Your task to perform on an android device: turn on sleep mode Image 0: 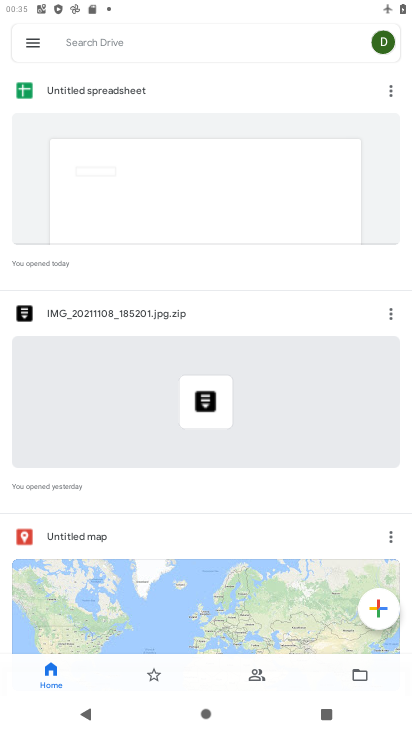
Step 0: press home button
Your task to perform on an android device: turn on sleep mode Image 1: 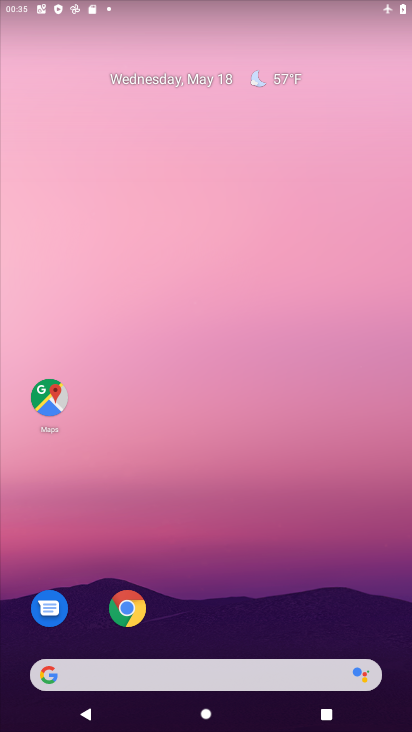
Step 1: drag from (267, 482) to (406, 365)
Your task to perform on an android device: turn on sleep mode Image 2: 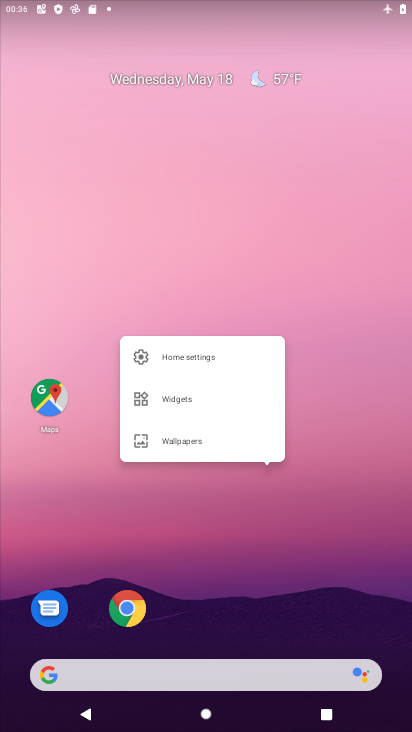
Step 2: click (334, 328)
Your task to perform on an android device: turn on sleep mode Image 3: 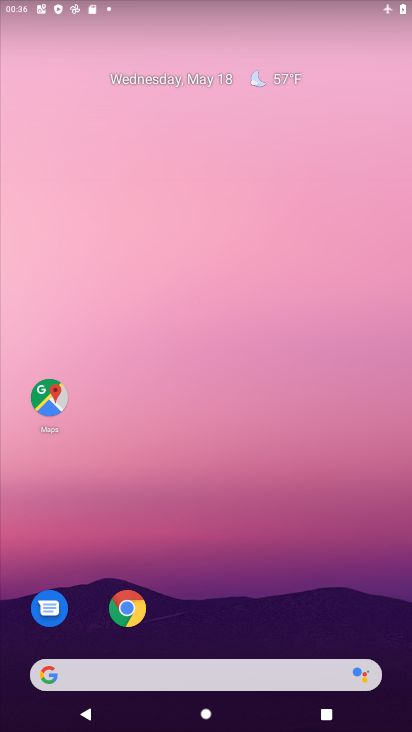
Step 3: drag from (212, 521) to (148, 75)
Your task to perform on an android device: turn on sleep mode Image 4: 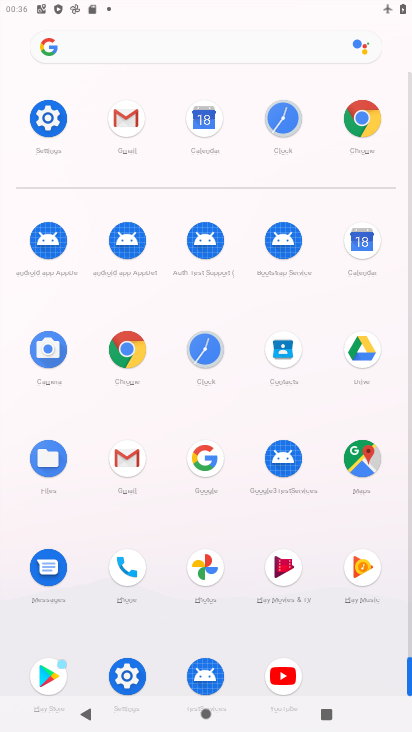
Step 4: click (46, 110)
Your task to perform on an android device: turn on sleep mode Image 5: 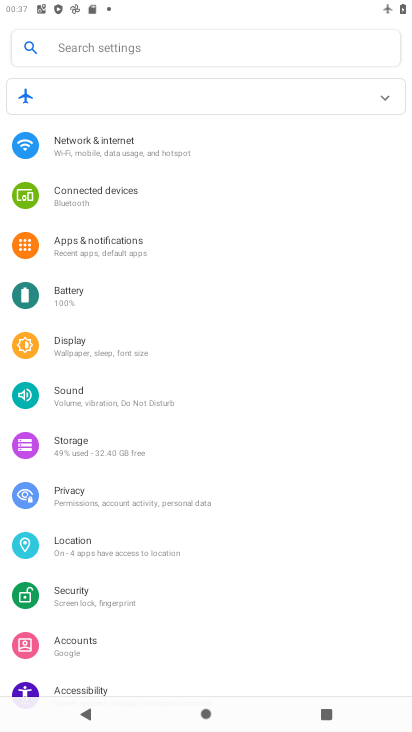
Step 5: click (77, 394)
Your task to perform on an android device: turn on sleep mode Image 6: 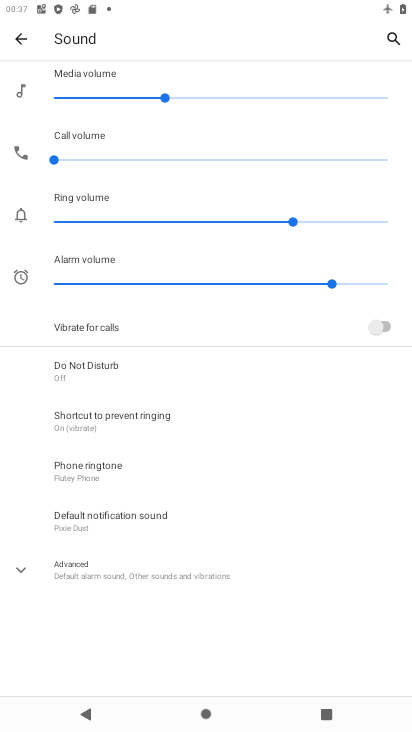
Step 6: task complete